Your task to perform on an android device: turn on wifi Image 0: 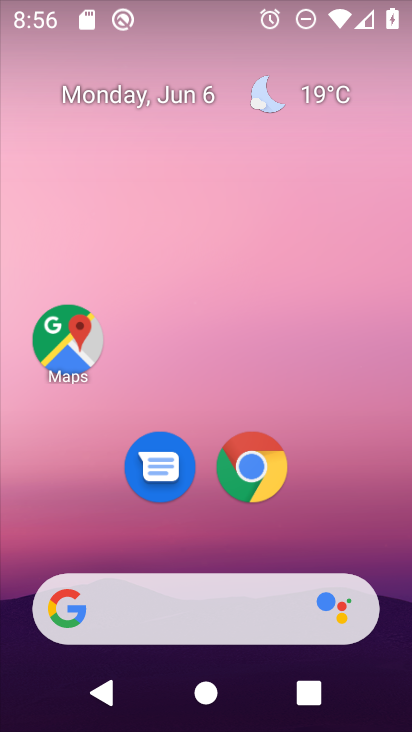
Step 0: drag from (337, 491) to (344, 137)
Your task to perform on an android device: turn on wifi Image 1: 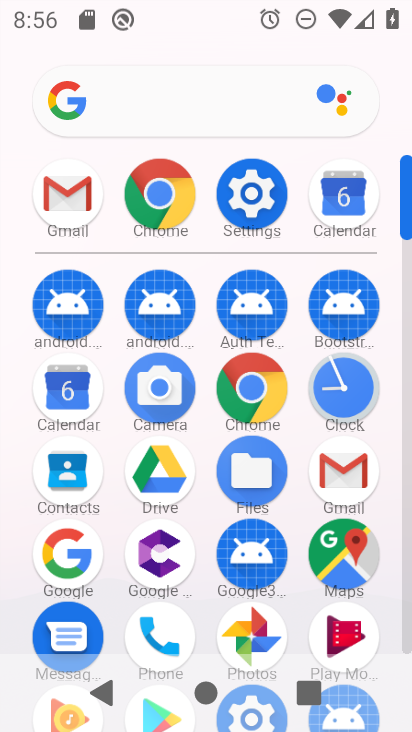
Step 1: click (262, 202)
Your task to perform on an android device: turn on wifi Image 2: 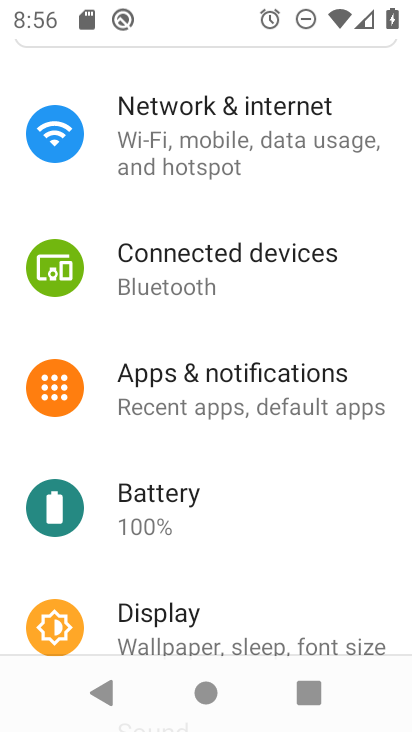
Step 2: drag from (357, 518) to (342, 377)
Your task to perform on an android device: turn on wifi Image 3: 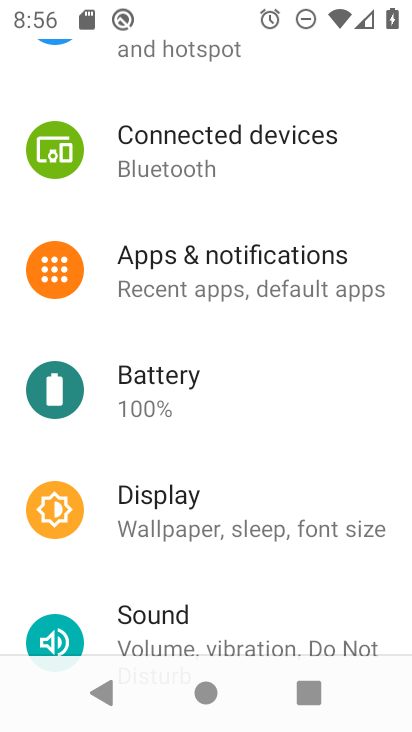
Step 3: drag from (340, 429) to (334, 301)
Your task to perform on an android device: turn on wifi Image 4: 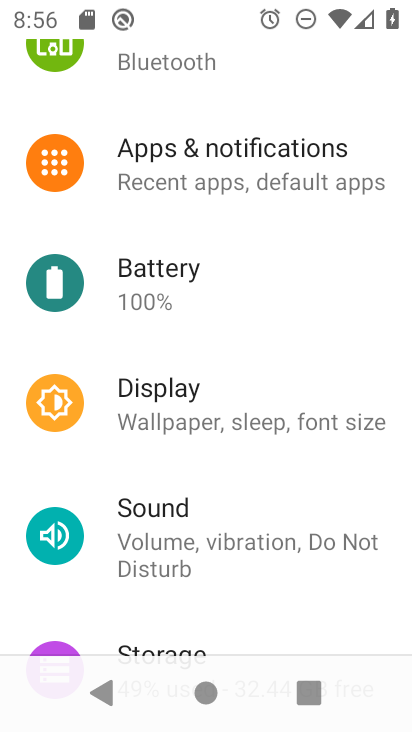
Step 4: drag from (344, 487) to (344, 315)
Your task to perform on an android device: turn on wifi Image 5: 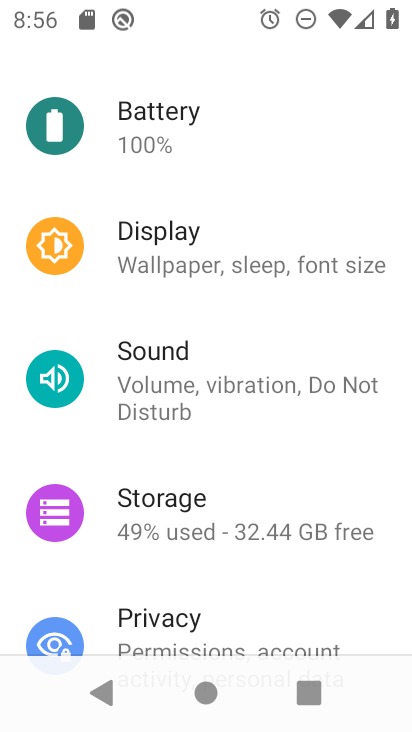
Step 5: drag from (321, 475) to (315, 279)
Your task to perform on an android device: turn on wifi Image 6: 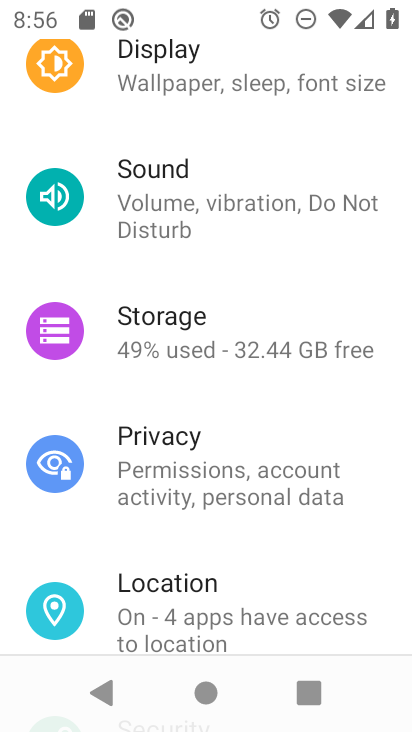
Step 6: drag from (324, 257) to (312, 384)
Your task to perform on an android device: turn on wifi Image 7: 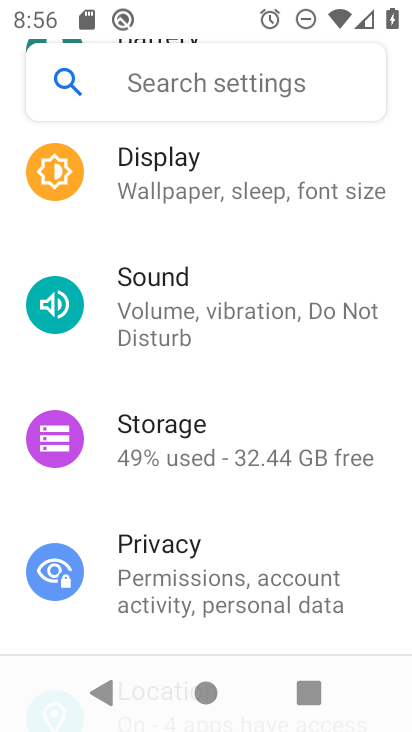
Step 7: drag from (319, 248) to (307, 388)
Your task to perform on an android device: turn on wifi Image 8: 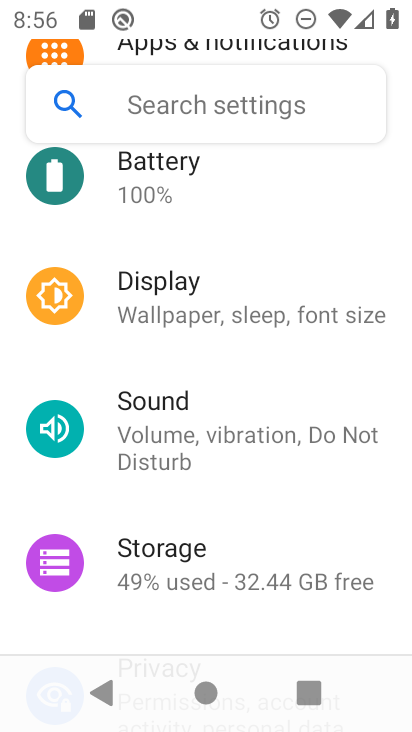
Step 8: drag from (312, 235) to (299, 370)
Your task to perform on an android device: turn on wifi Image 9: 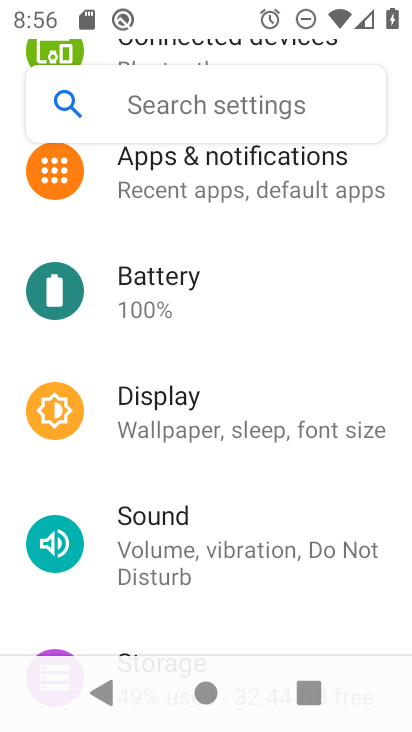
Step 9: drag from (323, 263) to (308, 402)
Your task to perform on an android device: turn on wifi Image 10: 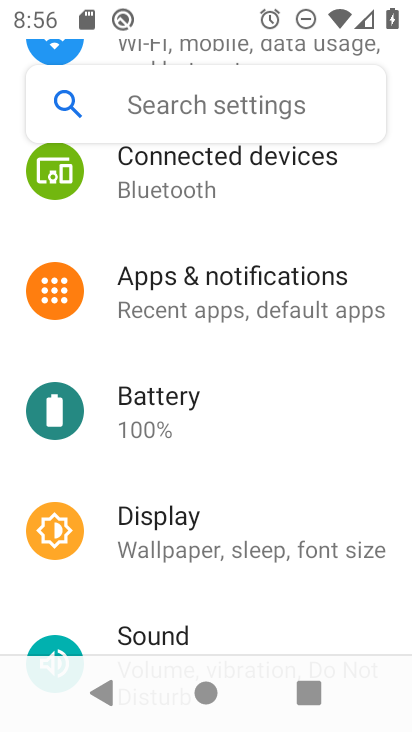
Step 10: drag from (362, 203) to (359, 391)
Your task to perform on an android device: turn on wifi Image 11: 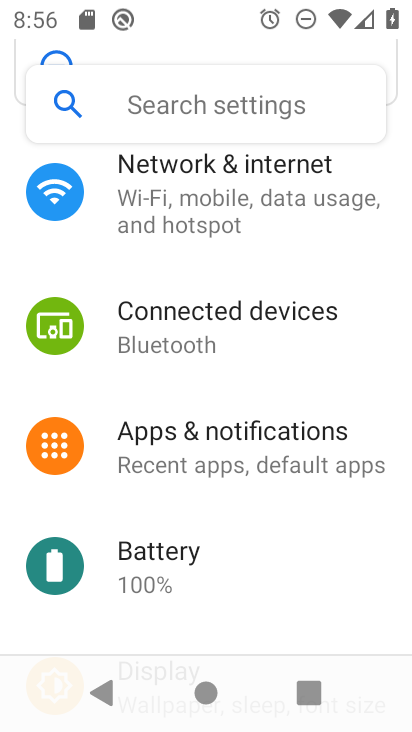
Step 11: drag from (357, 246) to (353, 396)
Your task to perform on an android device: turn on wifi Image 12: 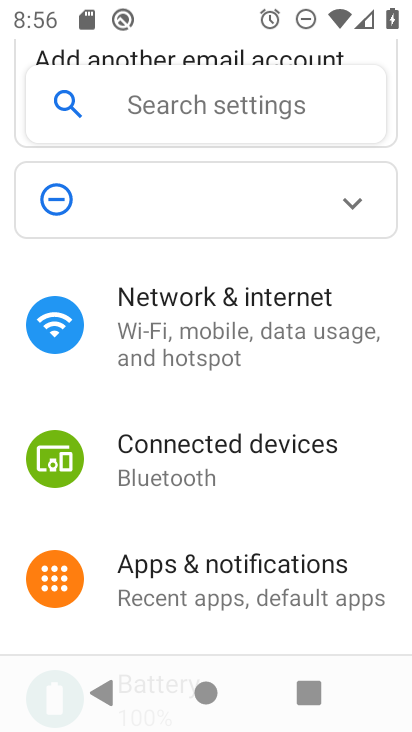
Step 12: click (252, 344)
Your task to perform on an android device: turn on wifi Image 13: 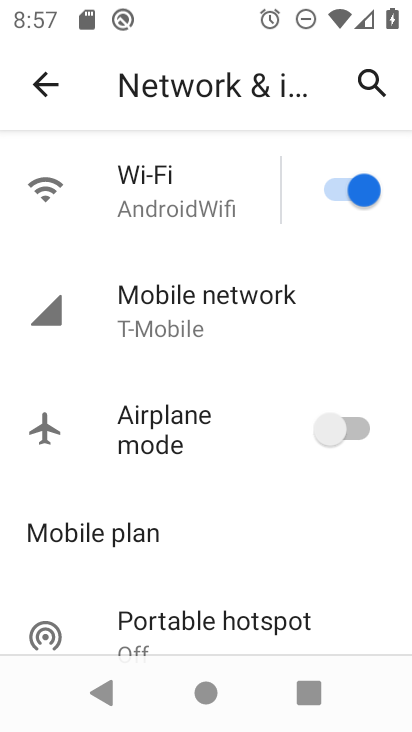
Step 13: task complete